Your task to perform on an android device: Search for sushi restaurants on Maps Image 0: 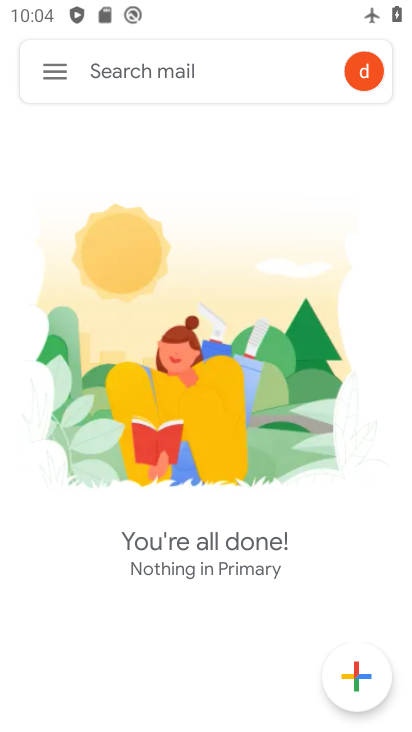
Step 0: press back button
Your task to perform on an android device: Search for sushi restaurants on Maps Image 1: 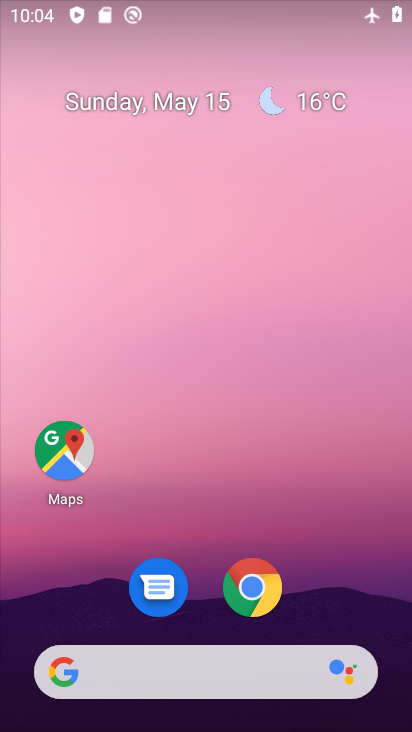
Step 1: click (66, 450)
Your task to perform on an android device: Search for sushi restaurants on Maps Image 2: 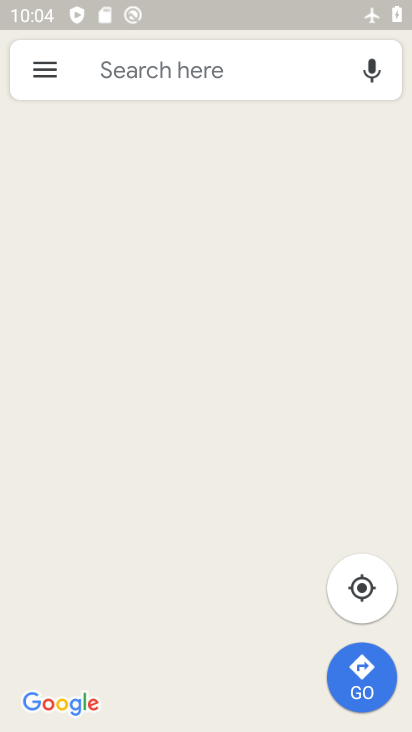
Step 2: click (245, 68)
Your task to perform on an android device: Search for sushi restaurants on Maps Image 3: 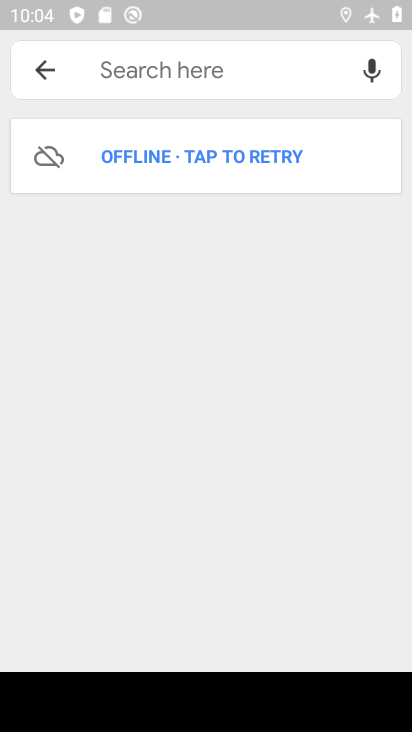
Step 3: click (225, 86)
Your task to perform on an android device: Search for sushi restaurants on Maps Image 4: 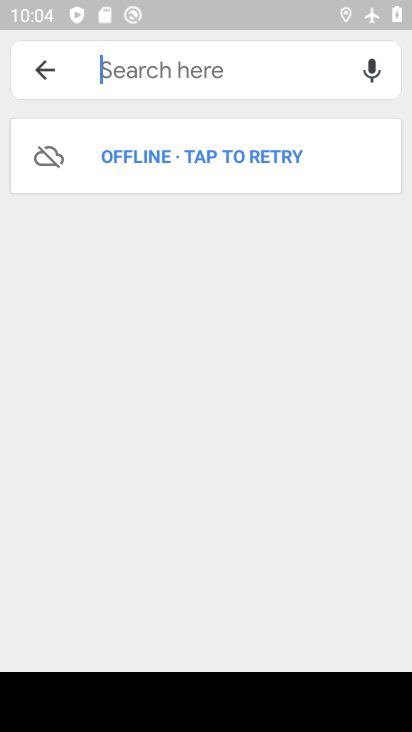
Step 4: type "sushi restaurants"
Your task to perform on an android device: Search for sushi restaurants on Maps Image 5: 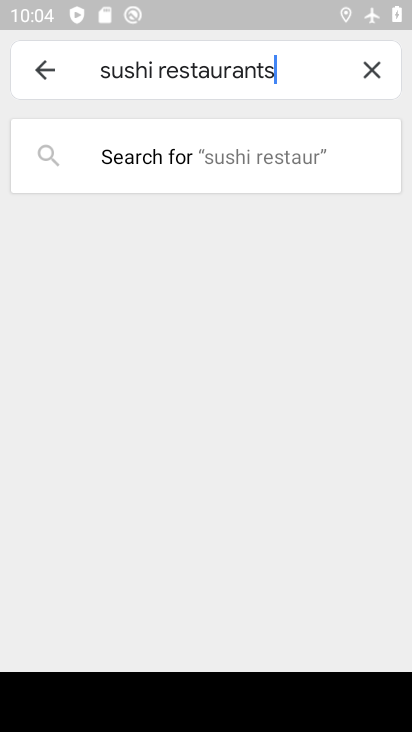
Step 5: type ""
Your task to perform on an android device: Search for sushi restaurants on Maps Image 6: 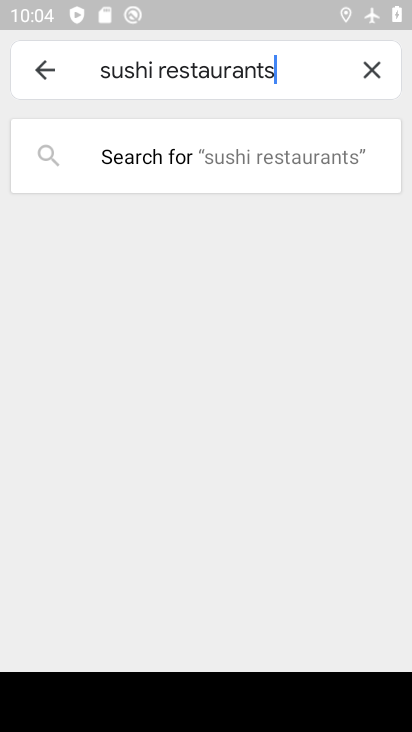
Step 6: click (202, 161)
Your task to perform on an android device: Search for sushi restaurants on Maps Image 7: 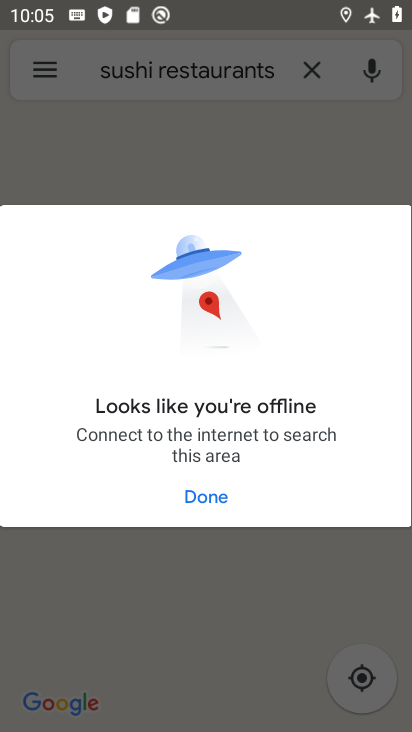
Step 7: task complete